Your task to perform on an android device: open app "Google News" Image 0: 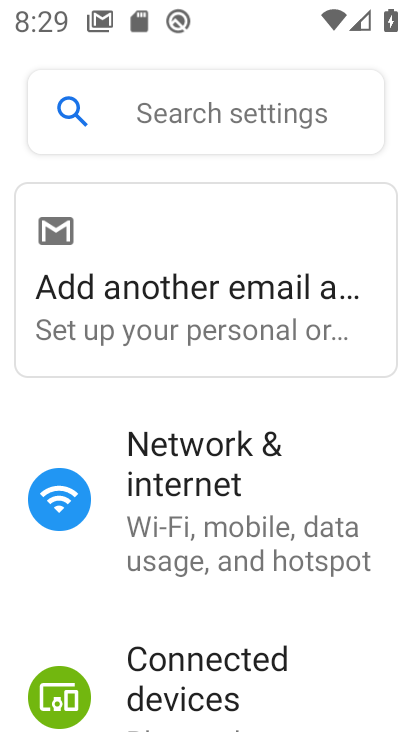
Step 0: press home button
Your task to perform on an android device: open app "Google News" Image 1: 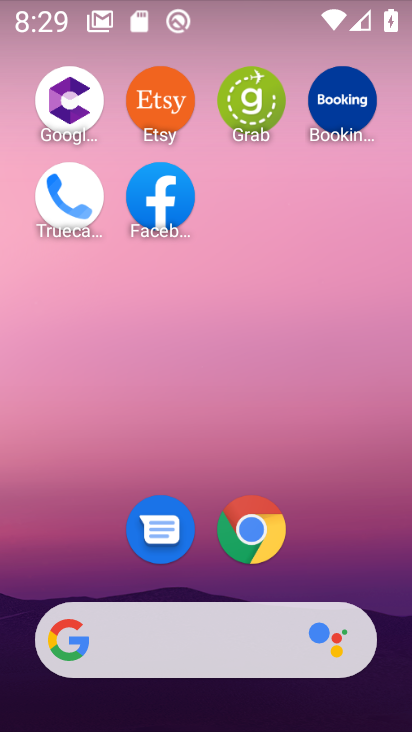
Step 1: drag from (210, 724) to (215, 94)
Your task to perform on an android device: open app "Google News" Image 2: 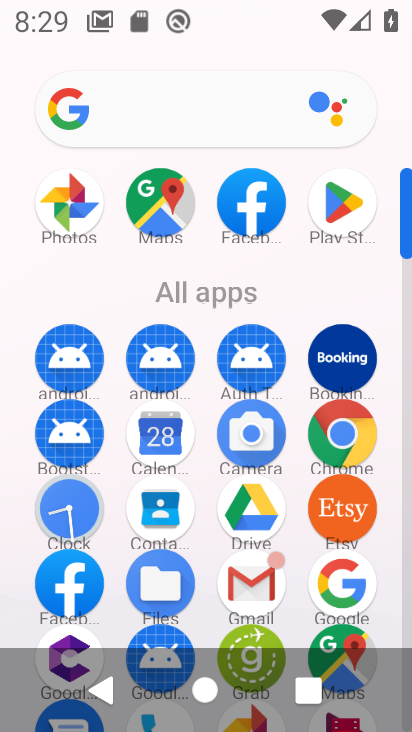
Step 2: drag from (288, 610) to (288, 253)
Your task to perform on an android device: open app "Google News" Image 3: 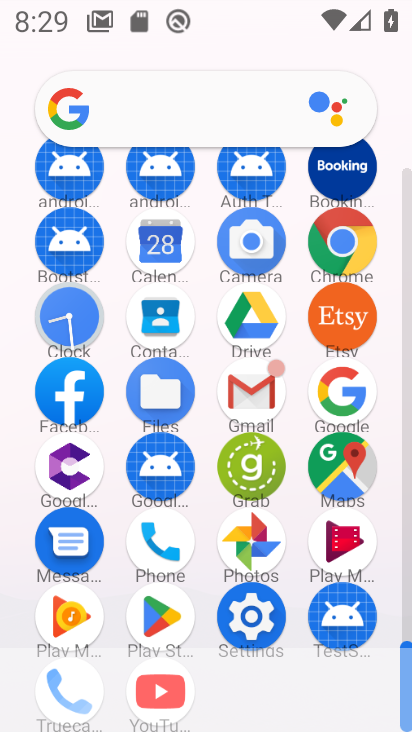
Step 3: click (149, 618)
Your task to perform on an android device: open app "Google News" Image 4: 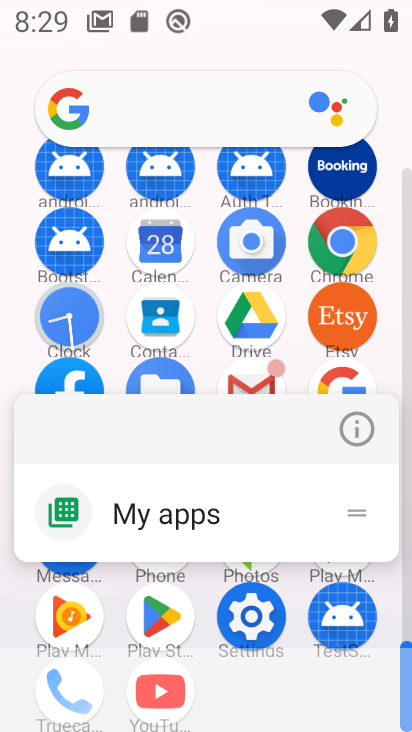
Step 4: click (140, 616)
Your task to perform on an android device: open app "Google News" Image 5: 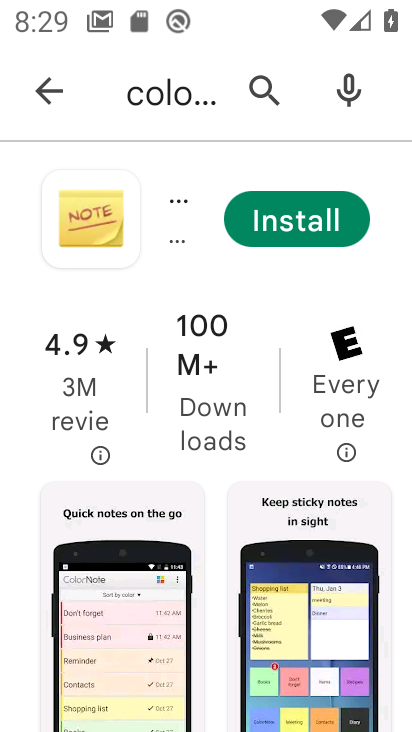
Step 5: click (259, 84)
Your task to perform on an android device: open app "Google News" Image 6: 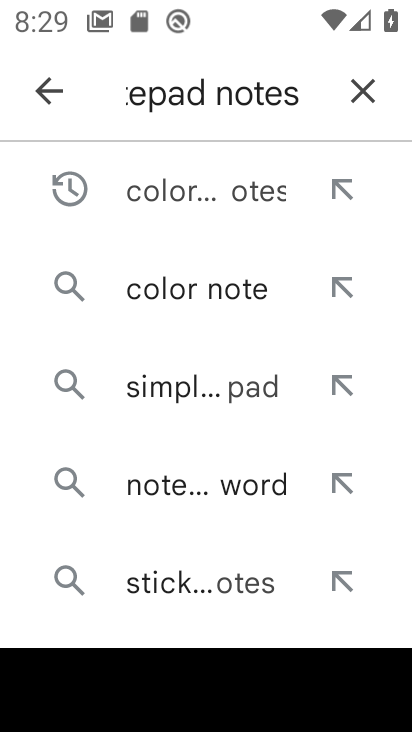
Step 6: click (357, 92)
Your task to perform on an android device: open app "Google News" Image 7: 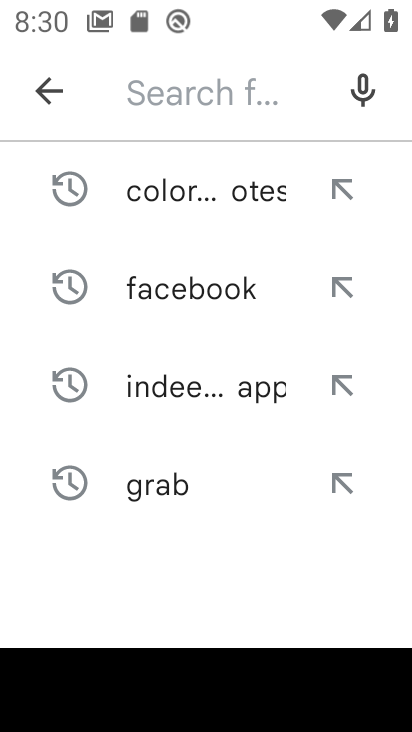
Step 7: type "Google News"
Your task to perform on an android device: open app "Google News" Image 8: 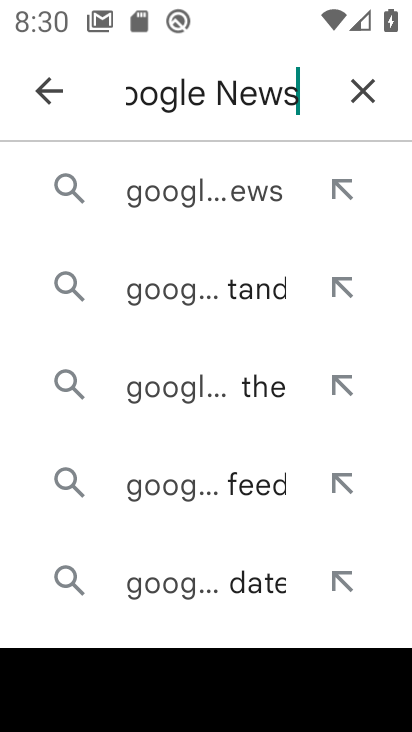
Step 8: click (175, 193)
Your task to perform on an android device: open app "Google News" Image 9: 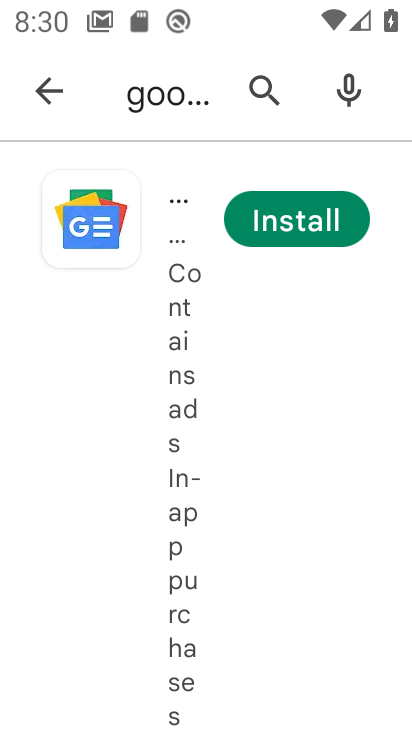
Step 9: task complete